Your task to perform on an android device: Go to settings Image 0: 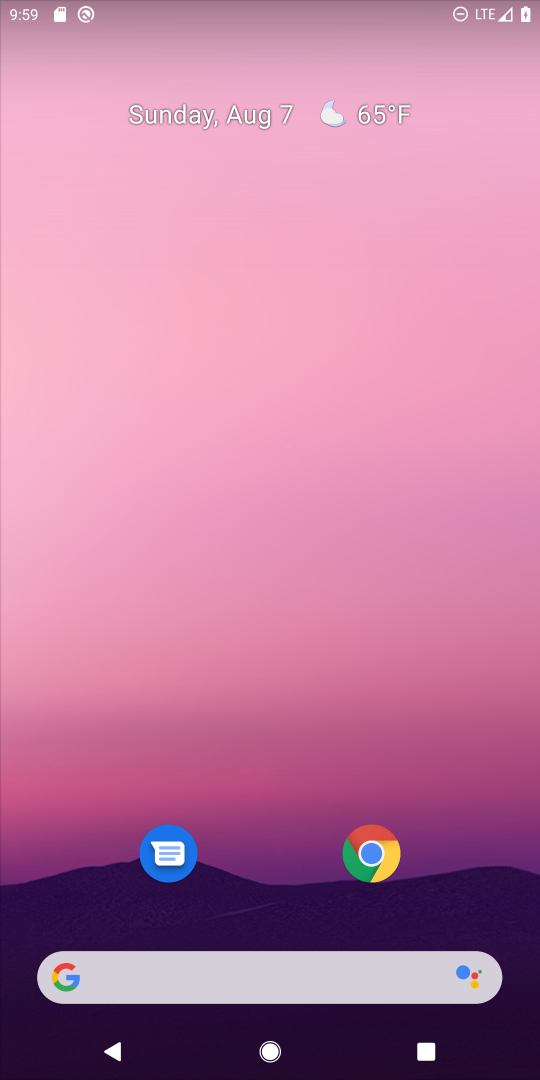
Step 0: drag from (278, 939) to (408, 248)
Your task to perform on an android device: Go to settings Image 1: 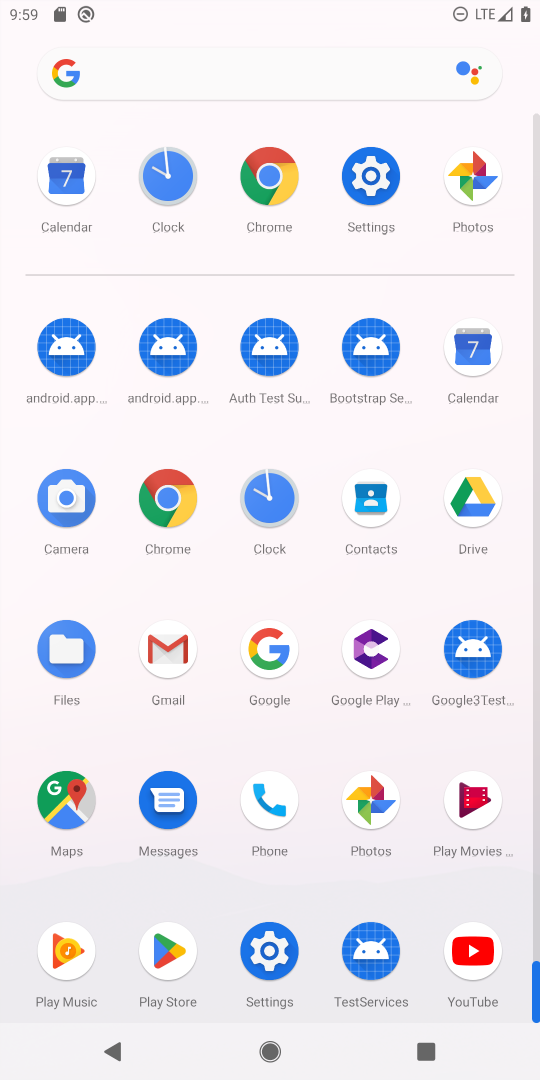
Step 1: click (366, 178)
Your task to perform on an android device: Go to settings Image 2: 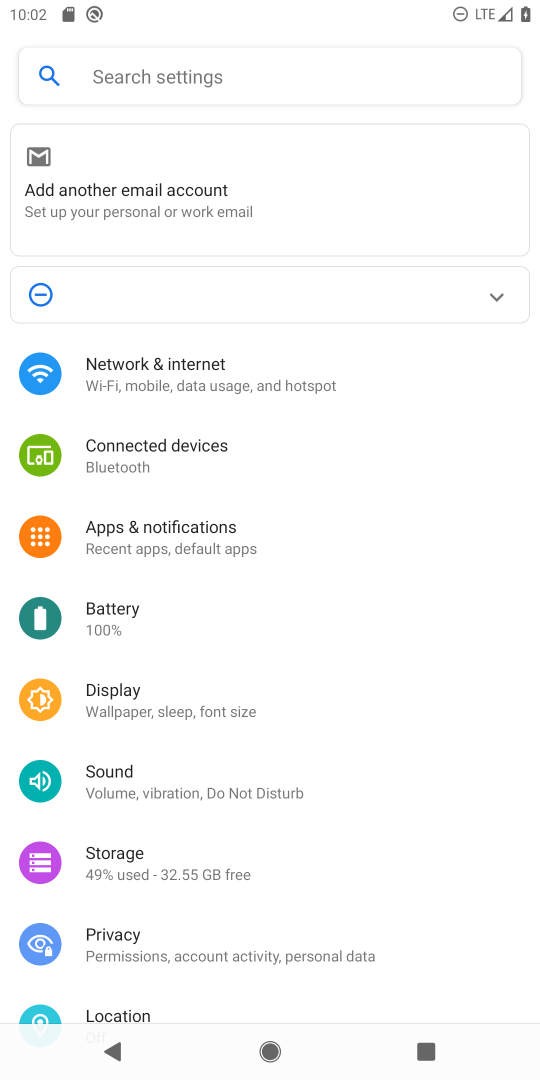
Step 2: task complete